Your task to perform on an android device: turn pop-ups off in chrome Image 0: 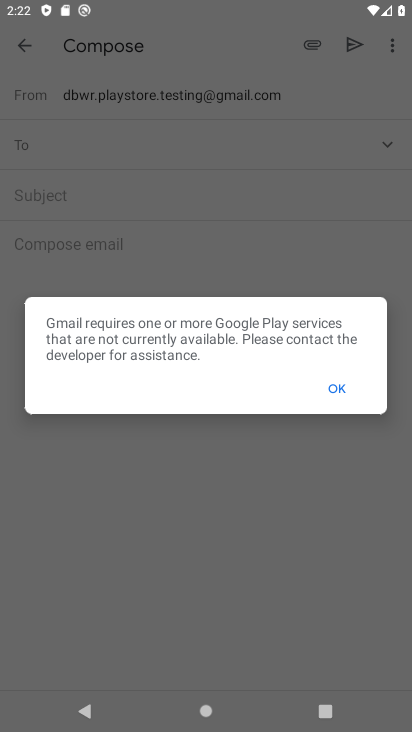
Step 0: press home button
Your task to perform on an android device: turn pop-ups off in chrome Image 1: 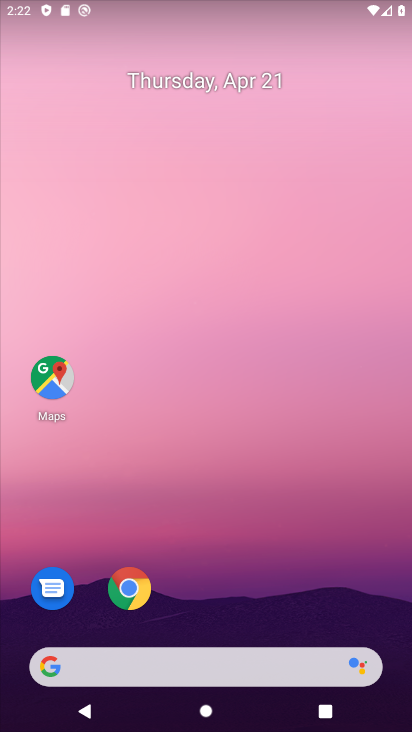
Step 1: drag from (268, 512) to (239, 312)
Your task to perform on an android device: turn pop-ups off in chrome Image 2: 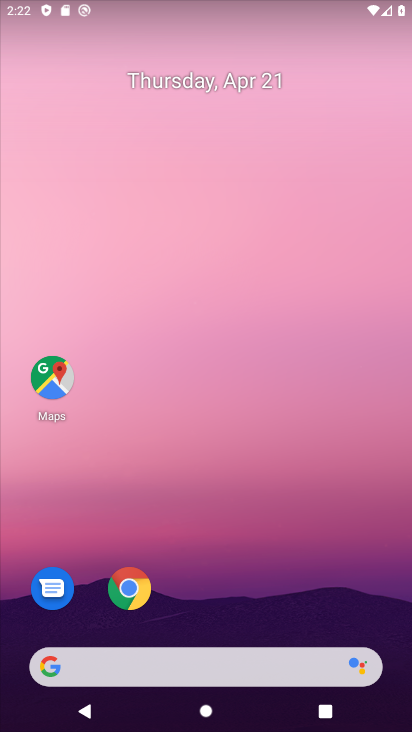
Step 2: drag from (285, 681) to (363, 96)
Your task to perform on an android device: turn pop-ups off in chrome Image 3: 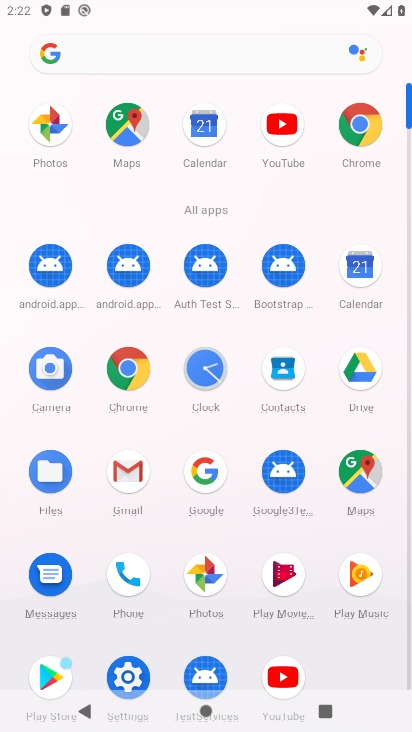
Step 3: click (129, 365)
Your task to perform on an android device: turn pop-ups off in chrome Image 4: 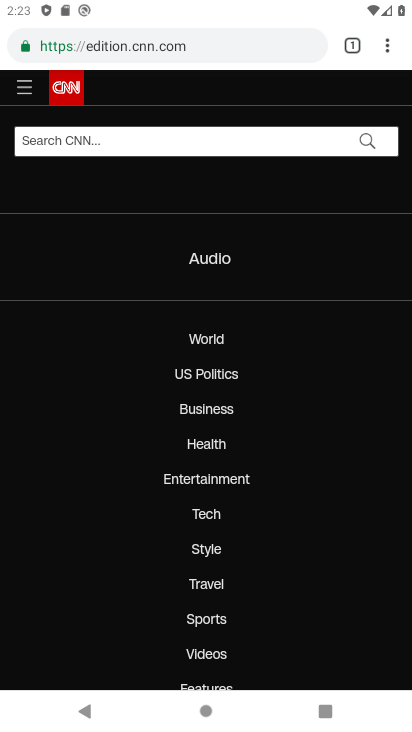
Step 4: click (386, 50)
Your task to perform on an android device: turn pop-ups off in chrome Image 5: 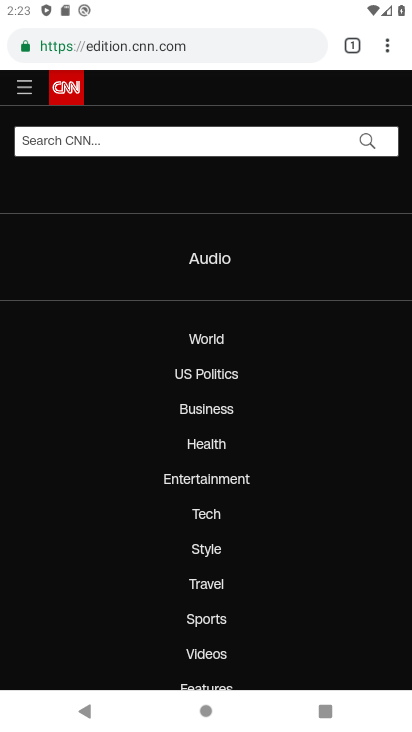
Step 5: drag from (385, 43) to (260, 562)
Your task to perform on an android device: turn pop-ups off in chrome Image 6: 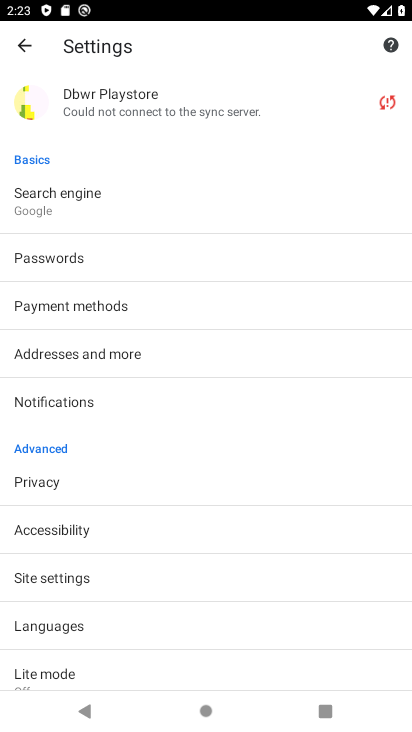
Step 6: click (101, 580)
Your task to perform on an android device: turn pop-ups off in chrome Image 7: 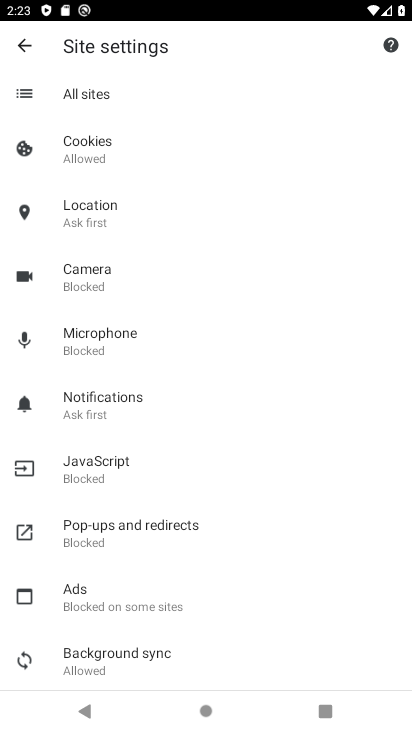
Step 7: click (128, 533)
Your task to perform on an android device: turn pop-ups off in chrome Image 8: 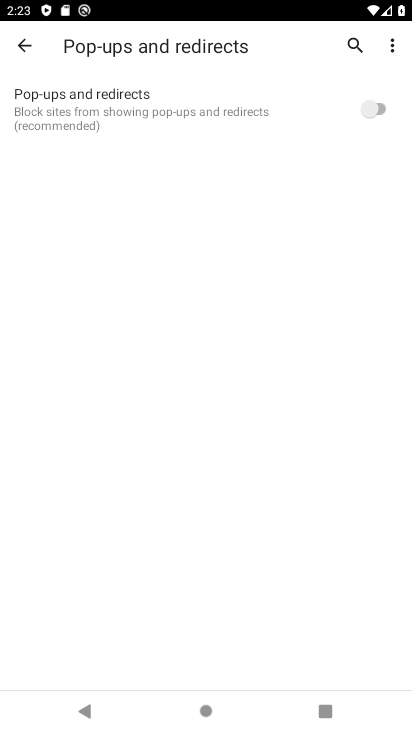
Step 8: task complete